Your task to perform on an android device: Go to privacy settings Image 0: 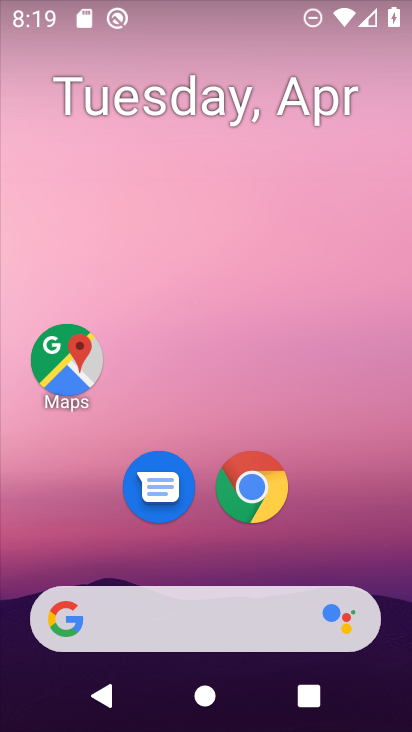
Step 0: drag from (170, 558) to (198, 227)
Your task to perform on an android device: Go to privacy settings Image 1: 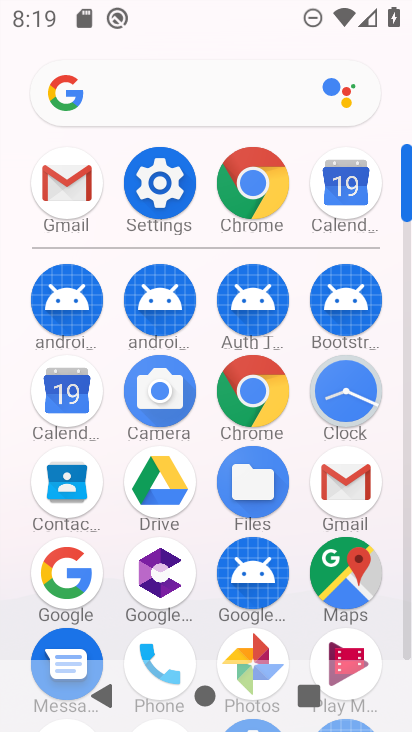
Step 1: click (162, 183)
Your task to perform on an android device: Go to privacy settings Image 2: 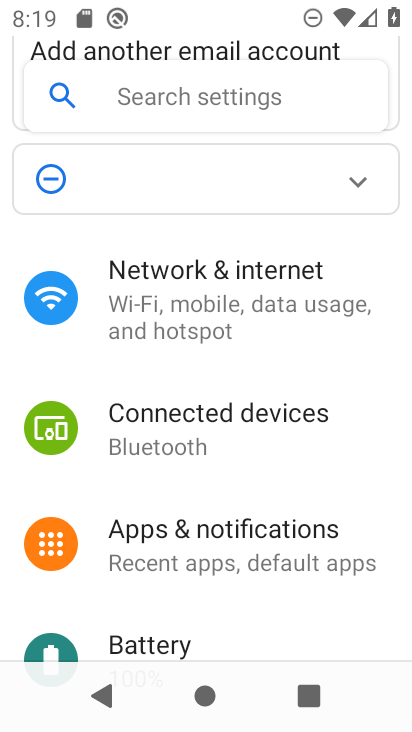
Step 2: drag from (213, 605) to (243, 332)
Your task to perform on an android device: Go to privacy settings Image 3: 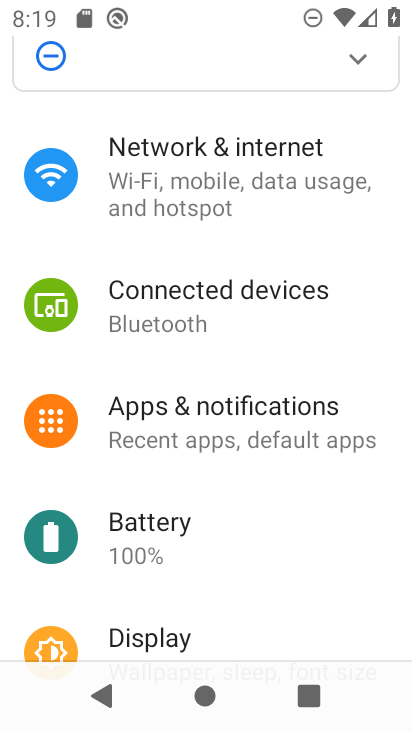
Step 3: drag from (212, 478) to (223, 308)
Your task to perform on an android device: Go to privacy settings Image 4: 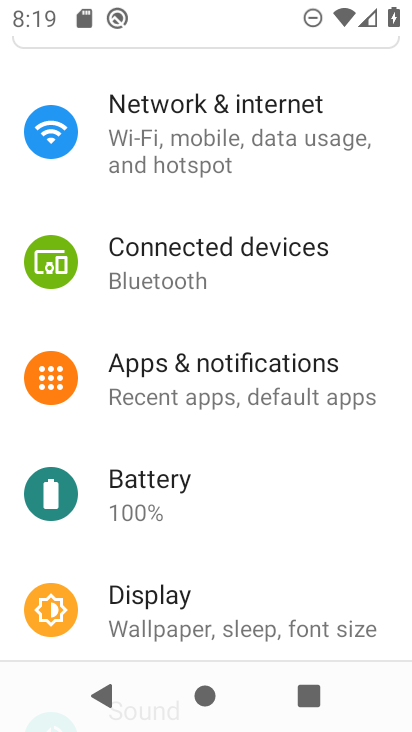
Step 4: drag from (148, 628) to (174, 308)
Your task to perform on an android device: Go to privacy settings Image 5: 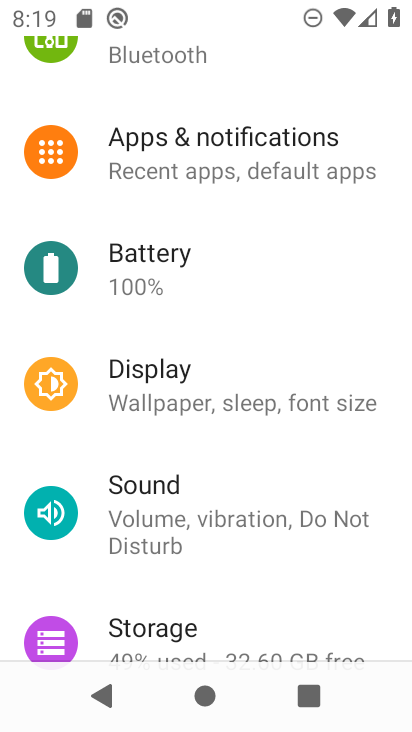
Step 5: drag from (186, 648) to (198, 324)
Your task to perform on an android device: Go to privacy settings Image 6: 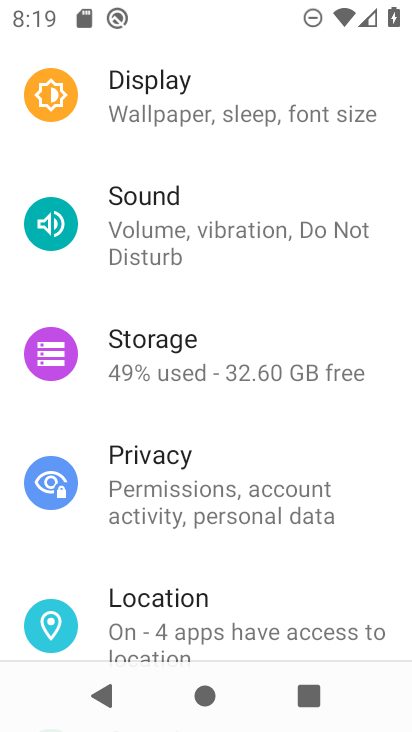
Step 6: click (178, 473)
Your task to perform on an android device: Go to privacy settings Image 7: 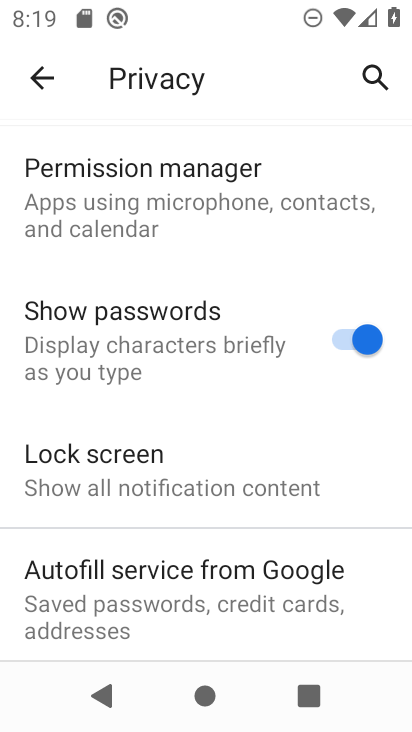
Step 7: drag from (211, 617) to (237, 286)
Your task to perform on an android device: Go to privacy settings Image 8: 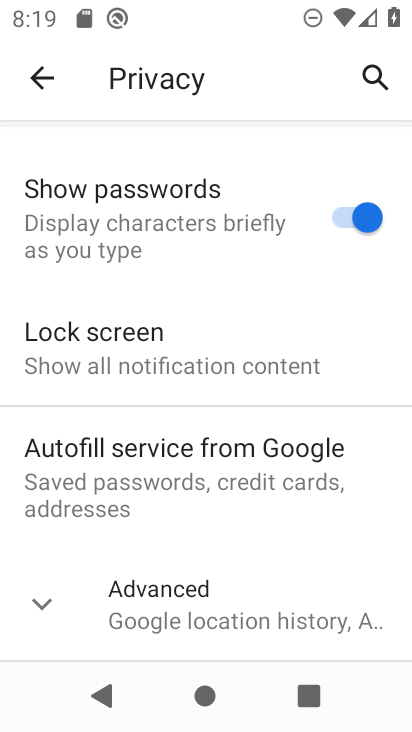
Step 8: click (192, 595)
Your task to perform on an android device: Go to privacy settings Image 9: 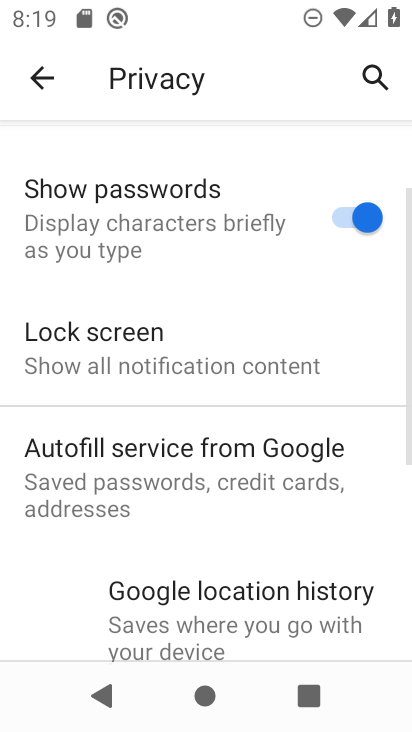
Step 9: task complete